Your task to perform on an android device: Open the Play Movies app and select the watchlist tab. Image 0: 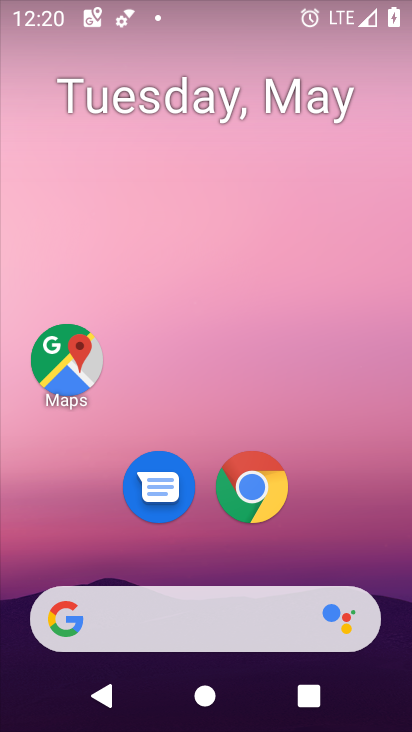
Step 0: drag from (134, 319) to (271, 143)
Your task to perform on an android device: Open the Play Movies app and select the watchlist tab. Image 1: 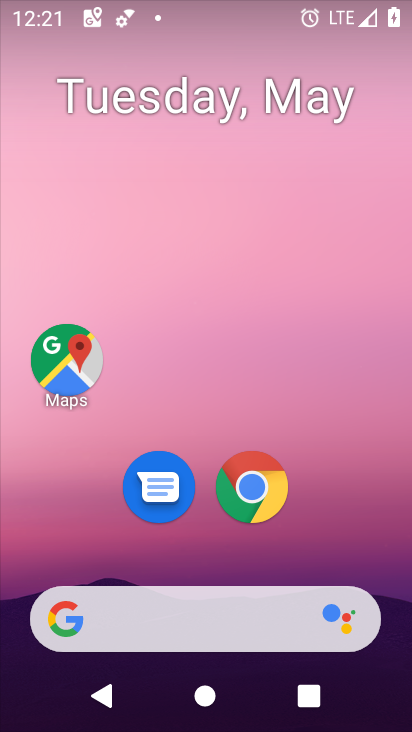
Step 1: drag from (126, 369) to (240, 145)
Your task to perform on an android device: Open the Play Movies app and select the watchlist tab. Image 2: 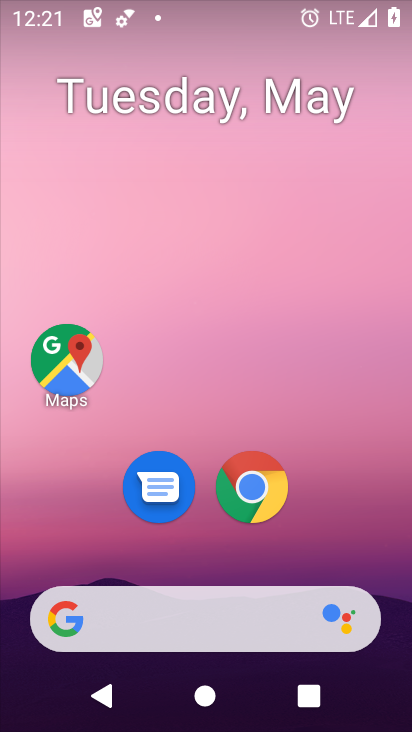
Step 2: drag from (79, 505) to (296, 115)
Your task to perform on an android device: Open the Play Movies app and select the watchlist tab. Image 3: 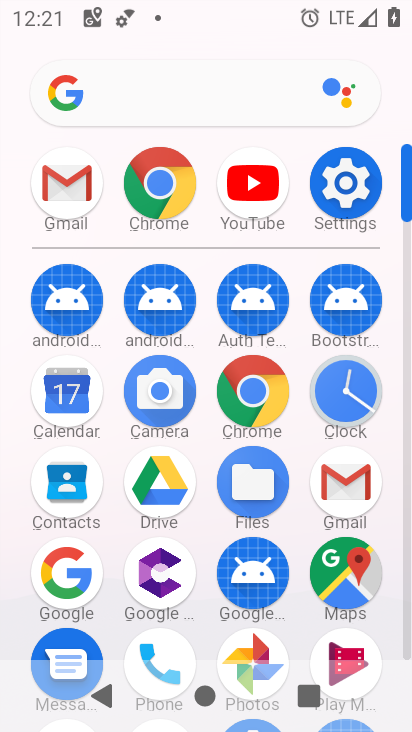
Step 3: click (340, 636)
Your task to perform on an android device: Open the Play Movies app and select the watchlist tab. Image 4: 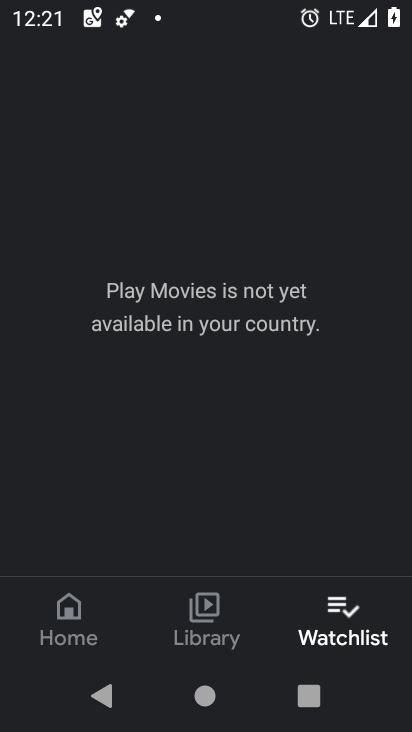
Step 4: drag from (341, 616) to (258, 616)
Your task to perform on an android device: Open the Play Movies app and select the watchlist tab. Image 5: 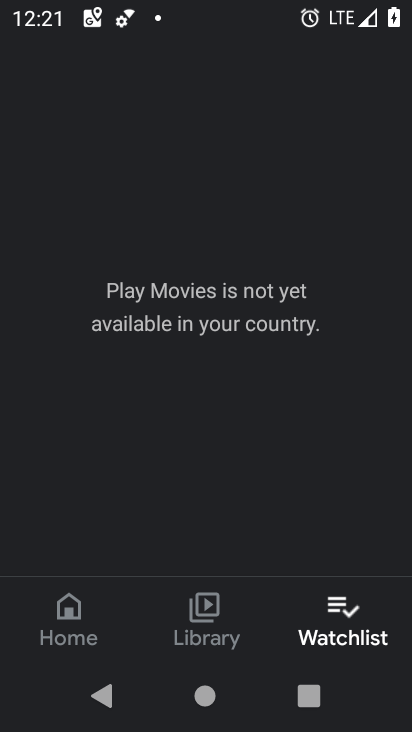
Step 5: click (321, 613)
Your task to perform on an android device: Open the Play Movies app and select the watchlist tab. Image 6: 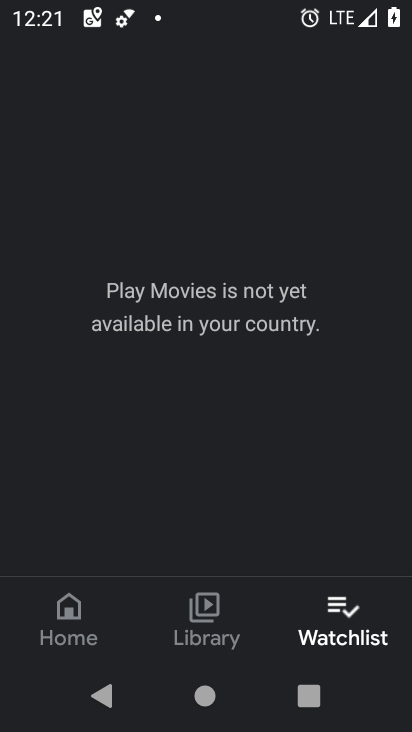
Step 6: task complete